Your task to perform on an android device: Go to Google Image 0: 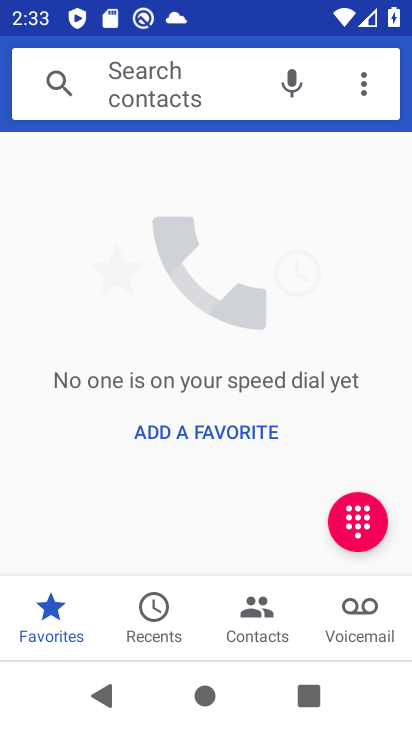
Step 0: press home button
Your task to perform on an android device: Go to Google Image 1: 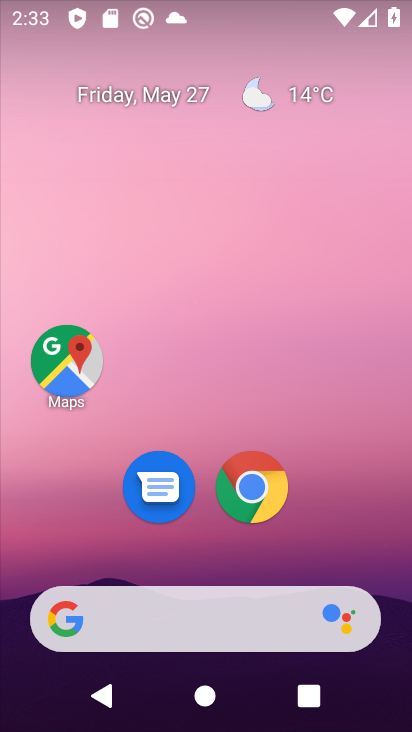
Step 1: drag from (276, 549) to (283, 106)
Your task to perform on an android device: Go to Google Image 2: 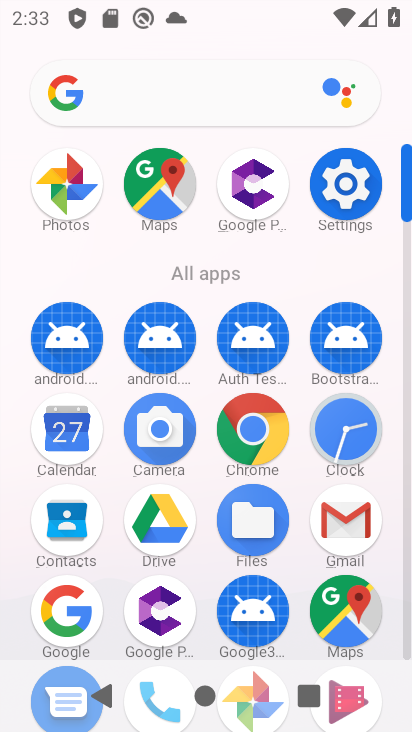
Step 2: click (60, 607)
Your task to perform on an android device: Go to Google Image 3: 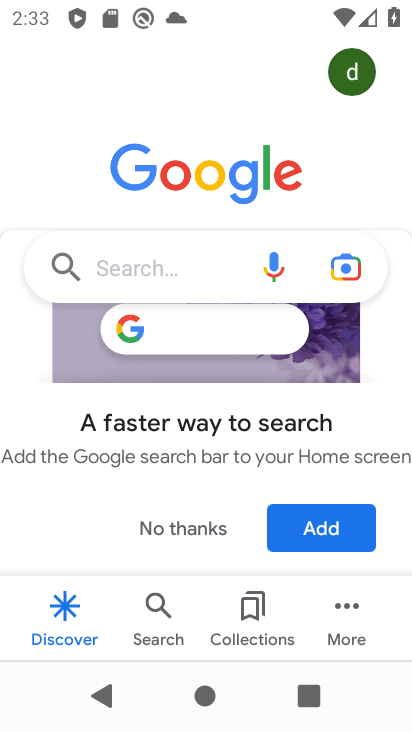
Step 3: task complete